Your task to perform on an android device: Open Google Maps Image 0: 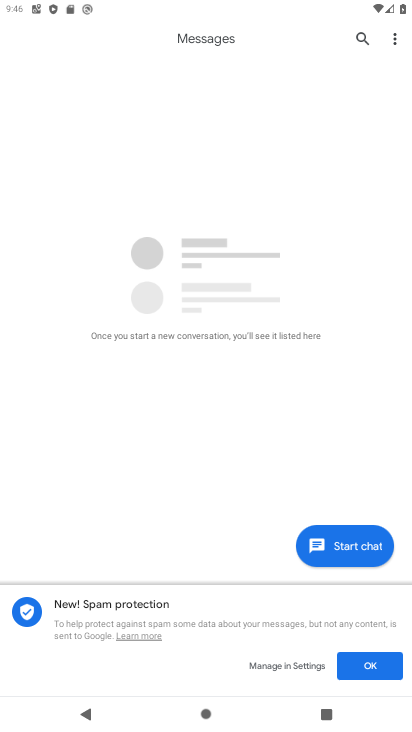
Step 0: press home button
Your task to perform on an android device: Open Google Maps Image 1: 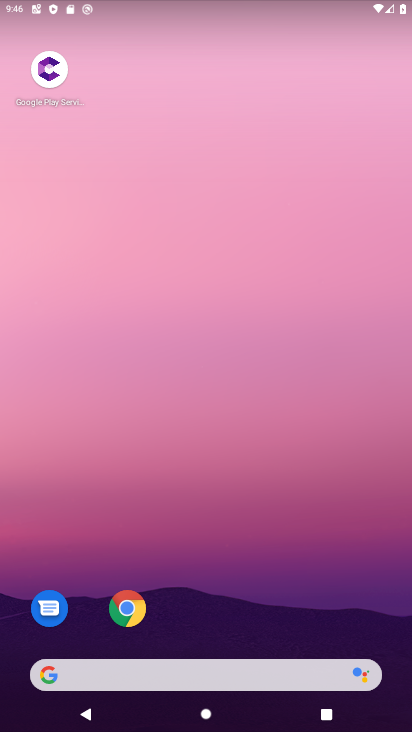
Step 1: drag from (184, 585) to (190, 107)
Your task to perform on an android device: Open Google Maps Image 2: 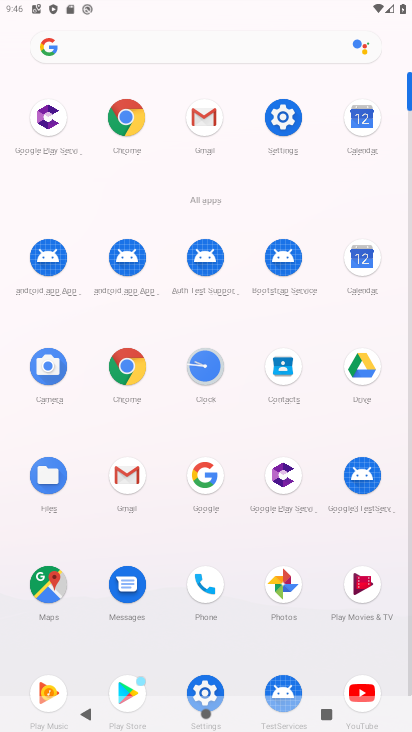
Step 2: click (53, 585)
Your task to perform on an android device: Open Google Maps Image 3: 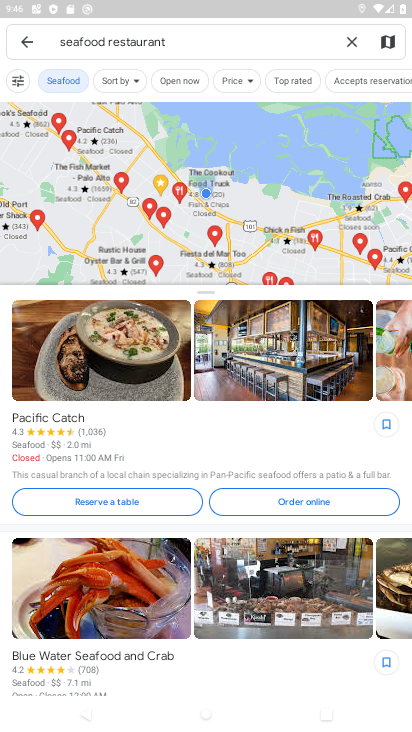
Step 3: task complete